Your task to perform on an android device: Open sound settings Image 0: 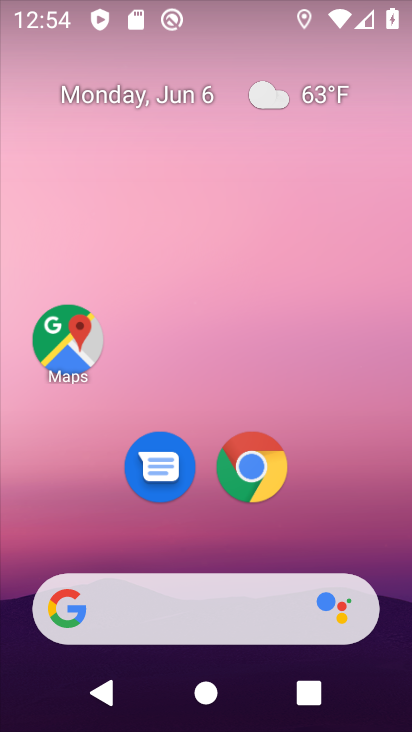
Step 0: drag from (395, 528) to (194, 63)
Your task to perform on an android device: Open sound settings Image 1: 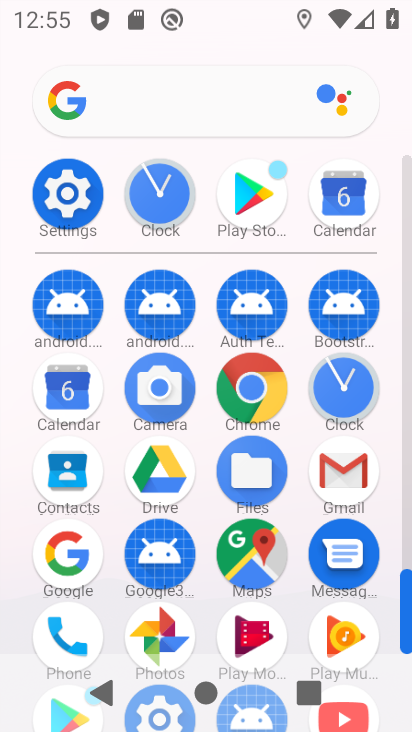
Step 1: click (66, 189)
Your task to perform on an android device: Open sound settings Image 2: 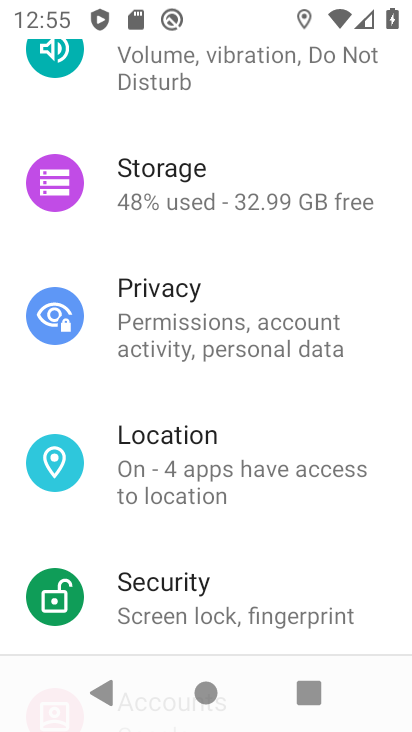
Step 2: drag from (135, 152) to (193, 588)
Your task to perform on an android device: Open sound settings Image 3: 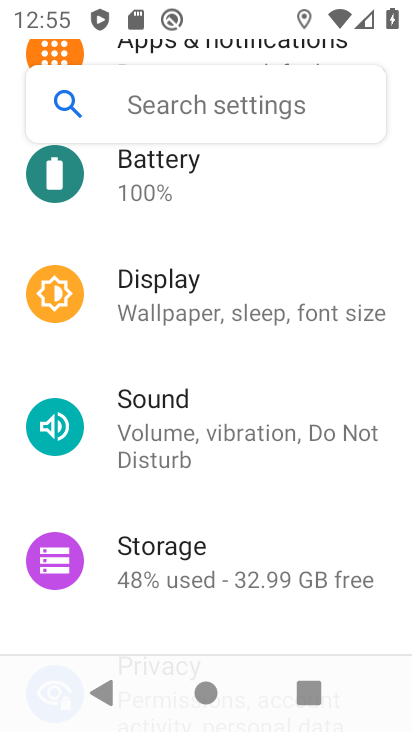
Step 3: click (142, 437)
Your task to perform on an android device: Open sound settings Image 4: 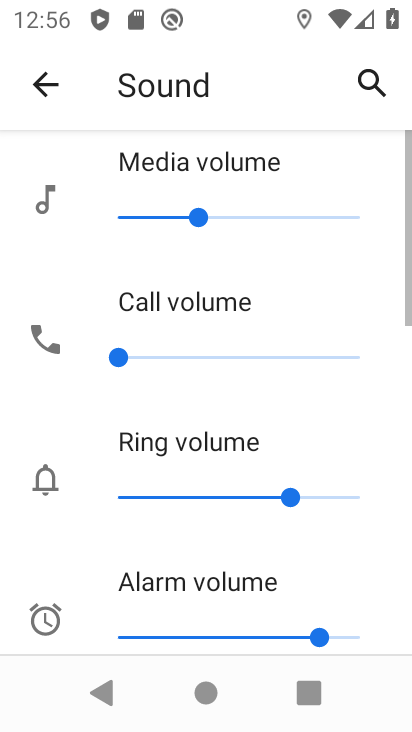
Step 4: task complete